Your task to perform on an android device: install app "Google Duo" Image 0: 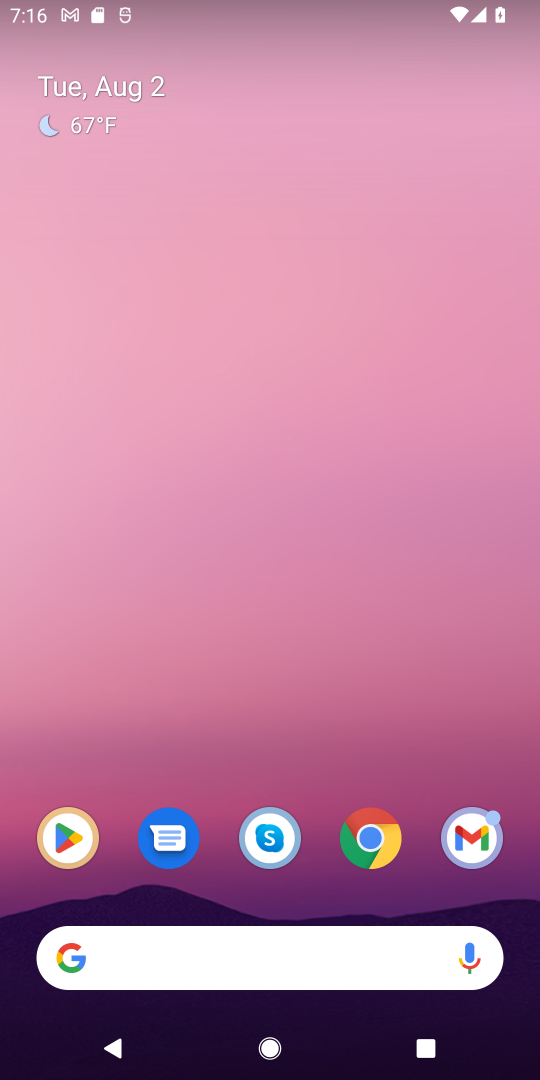
Step 0: click (82, 823)
Your task to perform on an android device: install app "Google Duo" Image 1: 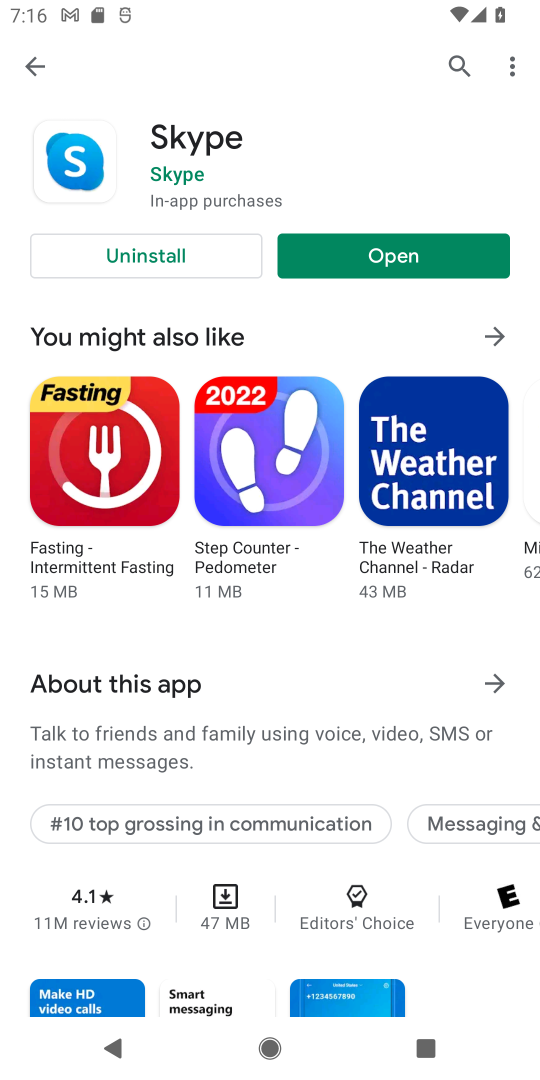
Step 1: click (470, 58)
Your task to perform on an android device: install app "Google Duo" Image 2: 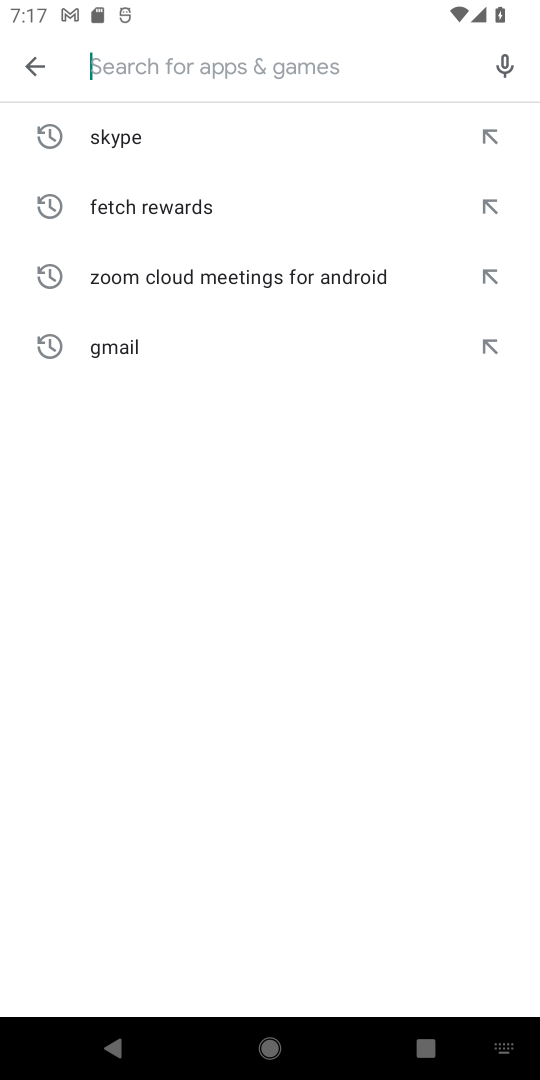
Step 2: type "google duo"
Your task to perform on an android device: install app "Google Duo" Image 3: 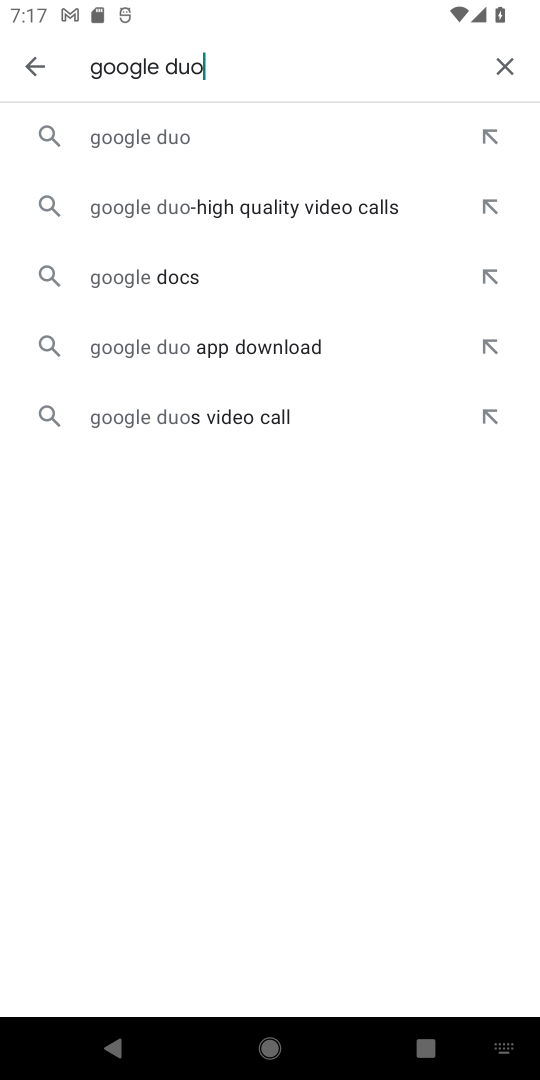
Step 3: click (177, 129)
Your task to perform on an android device: install app "Google Duo" Image 4: 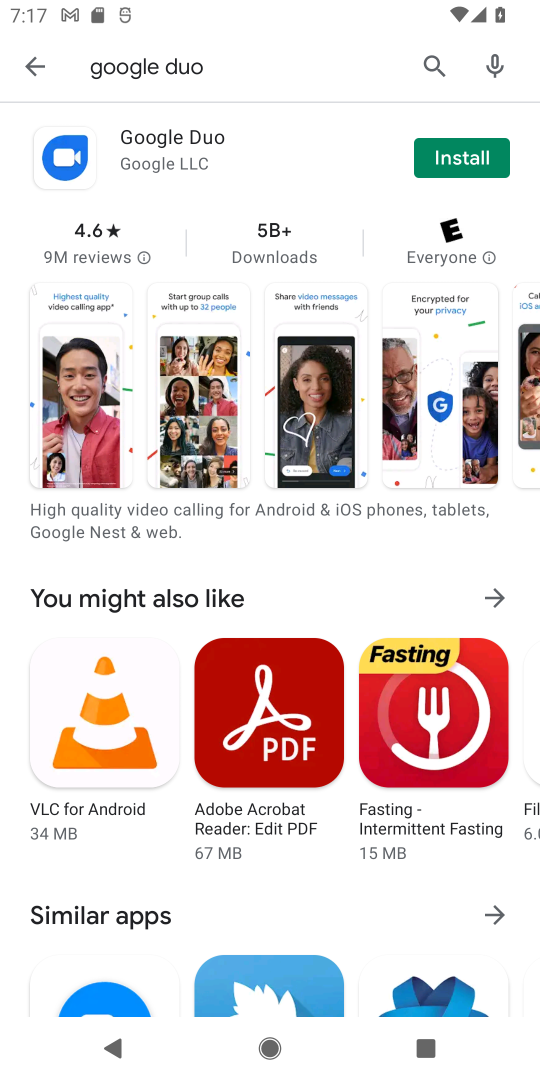
Step 4: click (177, 129)
Your task to perform on an android device: install app "Google Duo" Image 5: 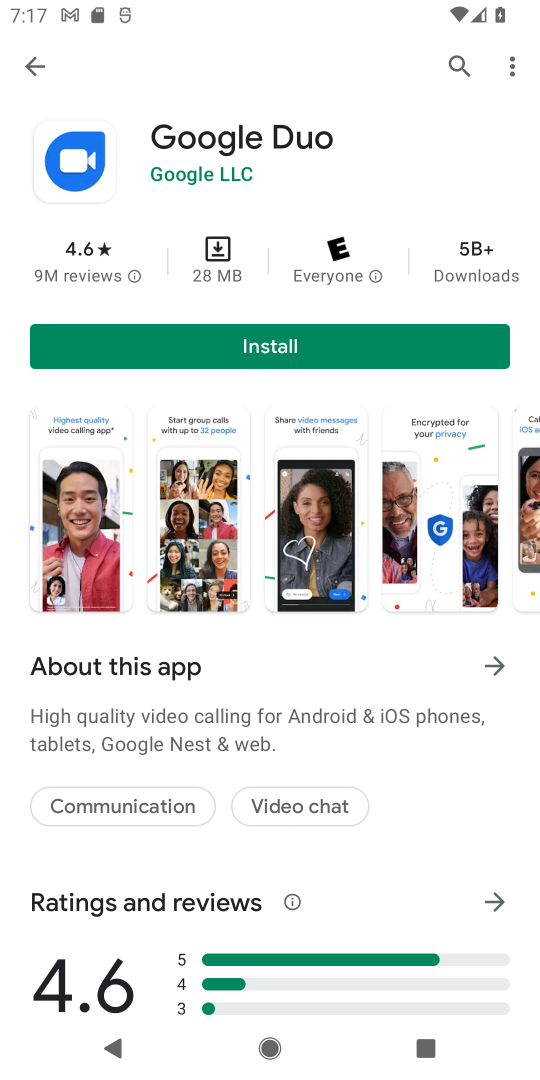
Step 5: click (390, 361)
Your task to perform on an android device: install app "Google Duo" Image 6: 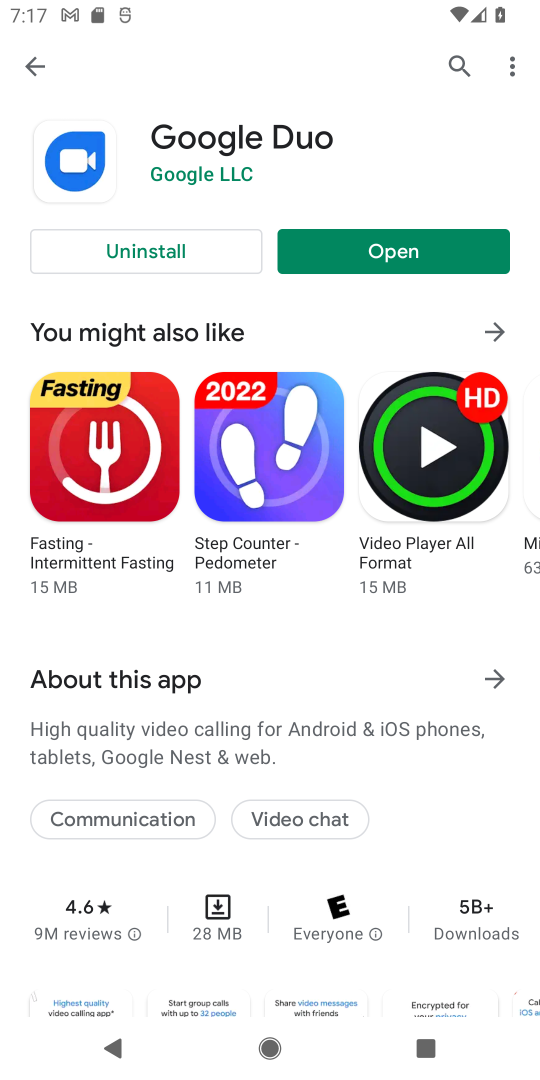
Step 6: task complete